Your task to perform on an android device: turn off javascript in the chrome app Image 0: 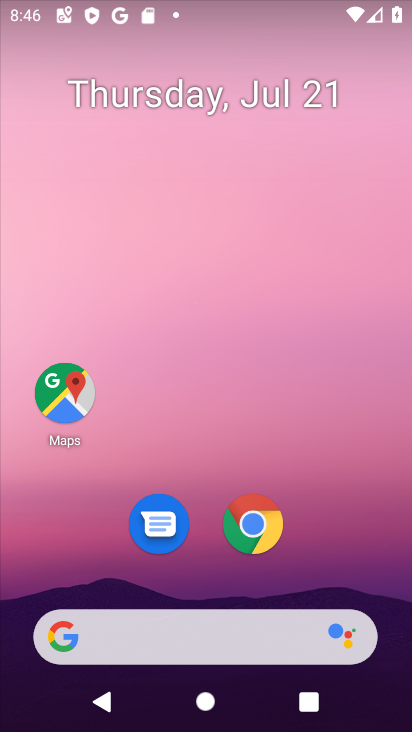
Step 0: press home button
Your task to perform on an android device: turn off javascript in the chrome app Image 1: 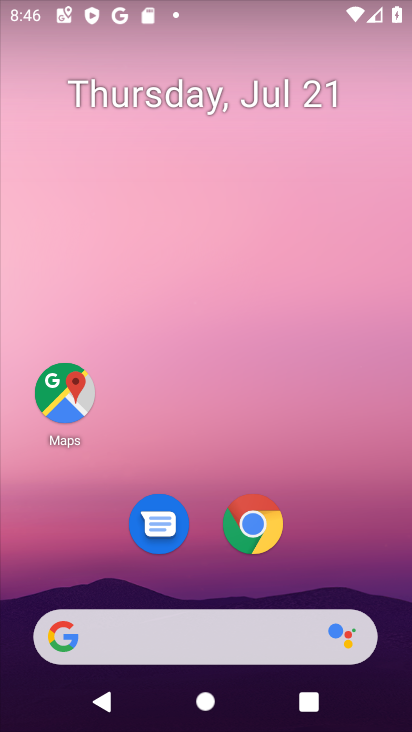
Step 1: click (321, 122)
Your task to perform on an android device: turn off javascript in the chrome app Image 2: 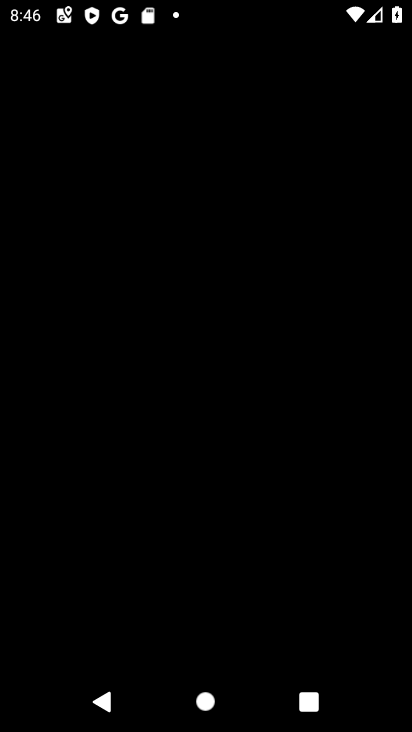
Step 2: press home button
Your task to perform on an android device: turn off javascript in the chrome app Image 3: 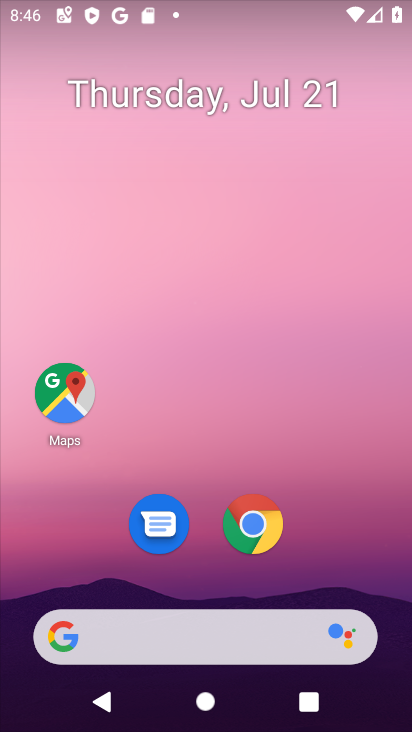
Step 3: click (257, 535)
Your task to perform on an android device: turn off javascript in the chrome app Image 4: 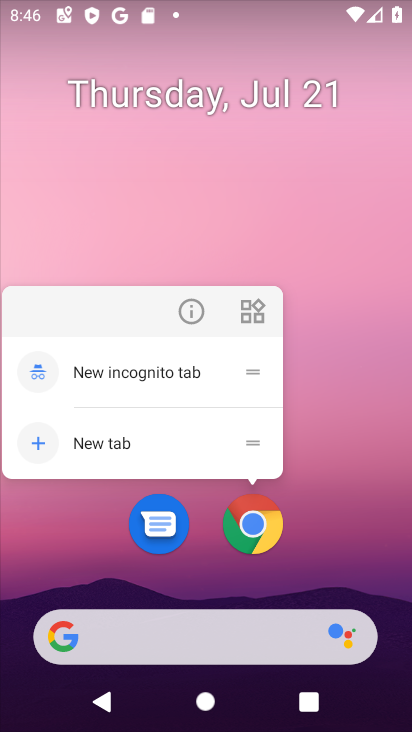
Step 4: click (260, 521)
Your task to perform on an android device: turn off javascript in the chrome app Image 5: 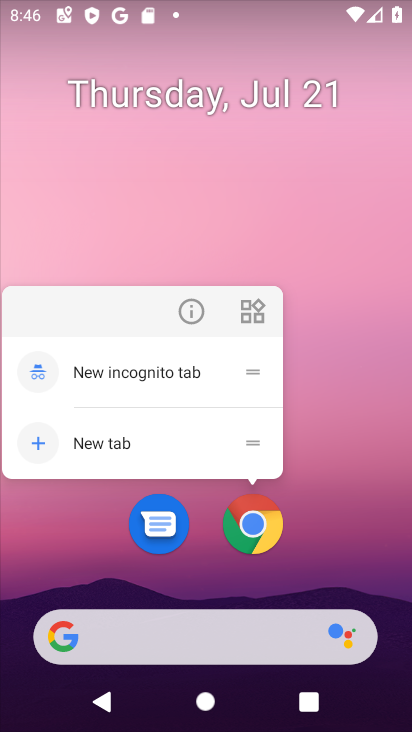
Step 5: click (248, 524)
Your task to perform on an android device: turn off javascript in the chrome app Image 6: 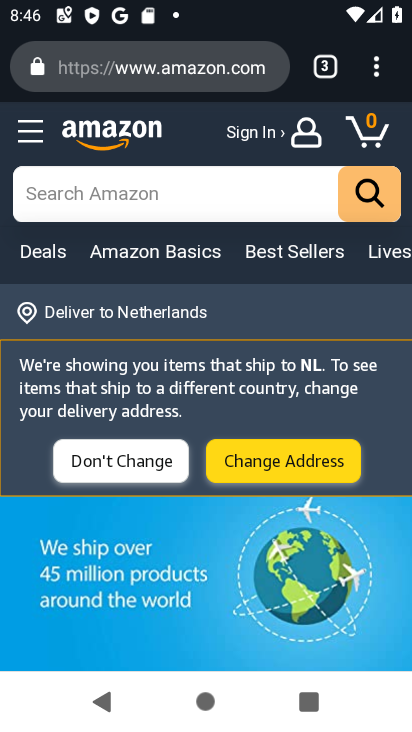
Step 6: drag from (376, 64) to (267, 541)
Your task to perform on an android device: turn off javascript in the chrome app Image 7: 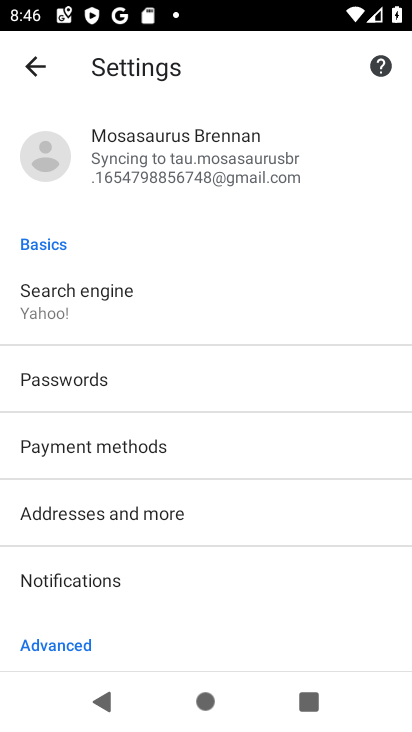
Step 7: drag from (191, 618) to (354, 182)
Your task to perform on an android device: turn off javascript in the chrome app Image 8: 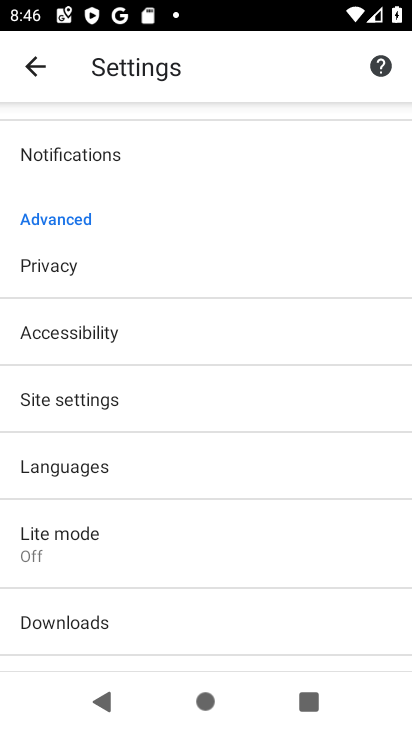
Step 8: click (104, 398)
Your task to perform on an android device: turn off javascript in the chrome app Image 9: 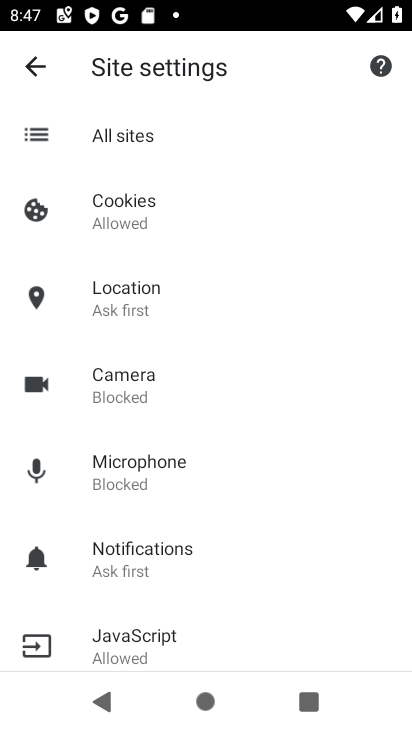
Step 9: drag from (166, 605) to (363, 134)
Your task to perform on an android device: turn off javascript in the chrome app Image 10: 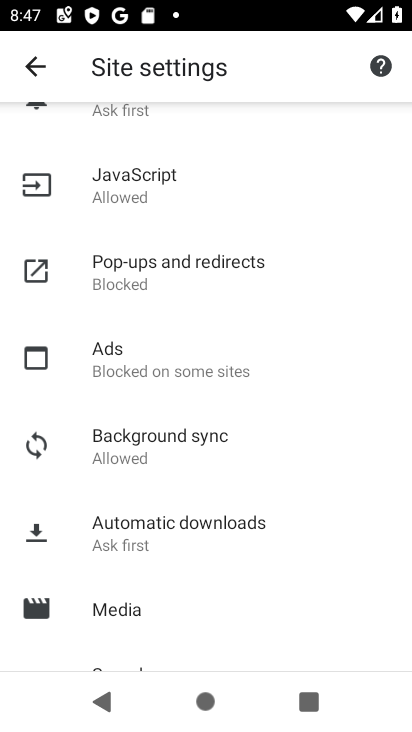
Step 10: click (144, 182)
Your task to perform on an android device: turn off javascript in the chrome app Image 11: 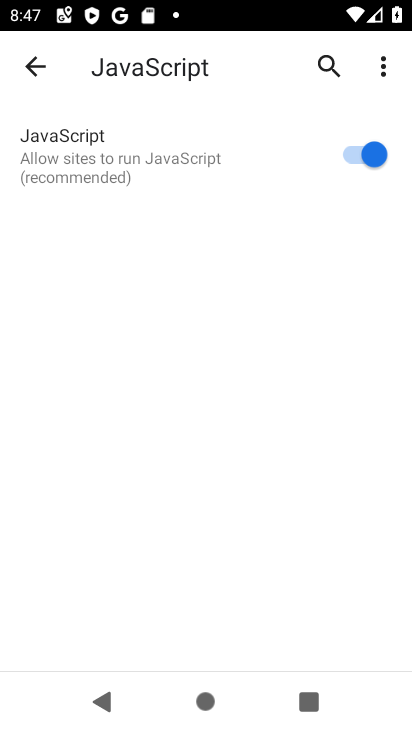
Step 11: click (356, 151)
Your task to perform on an android device: turn off javascript in the chrome app Image 12: 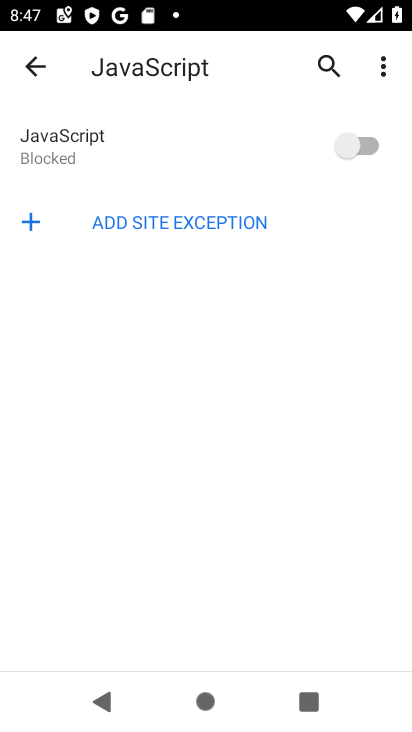
Step 12: task complete